Your task to perform on an android device: uninstall "PlayWell" Image 0: 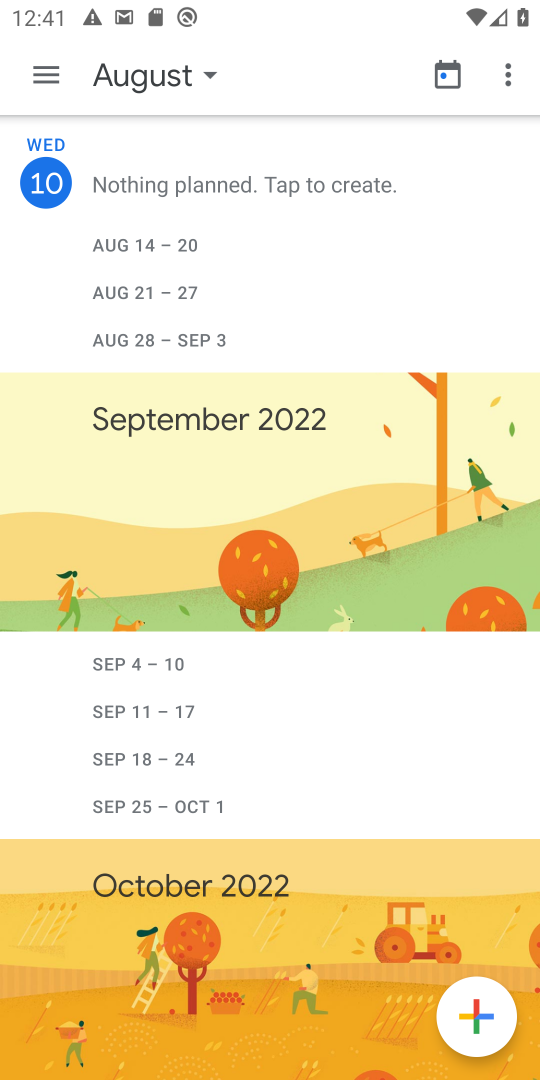
Step 0: press home button
Your task to perform on an android device: uninstall "PlayWell" Image 1: 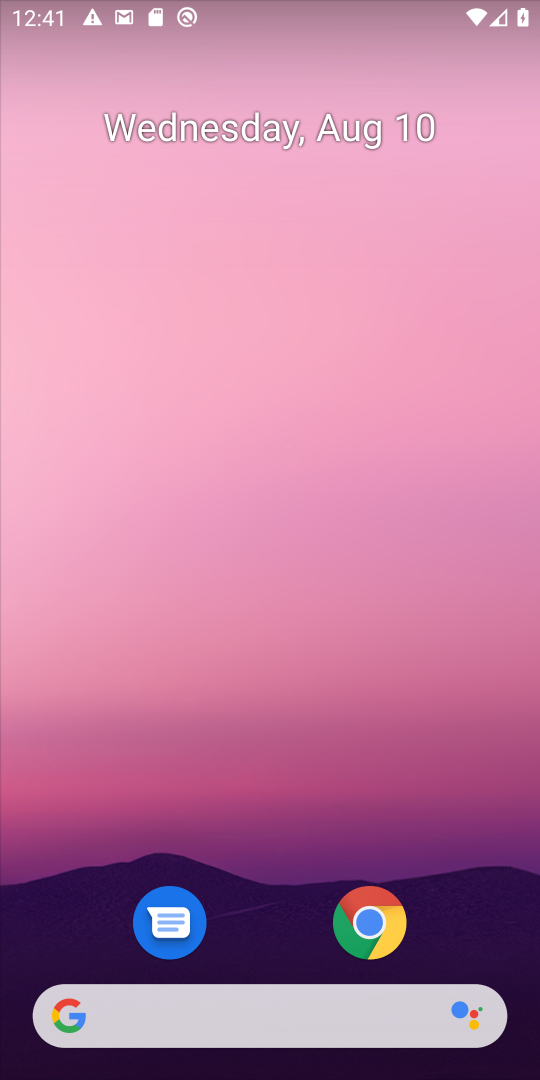
Step 1: drag from (261, 906) to (246, 315)
Your task to perform on an android device: uninstall "PlayWell" Image 2: 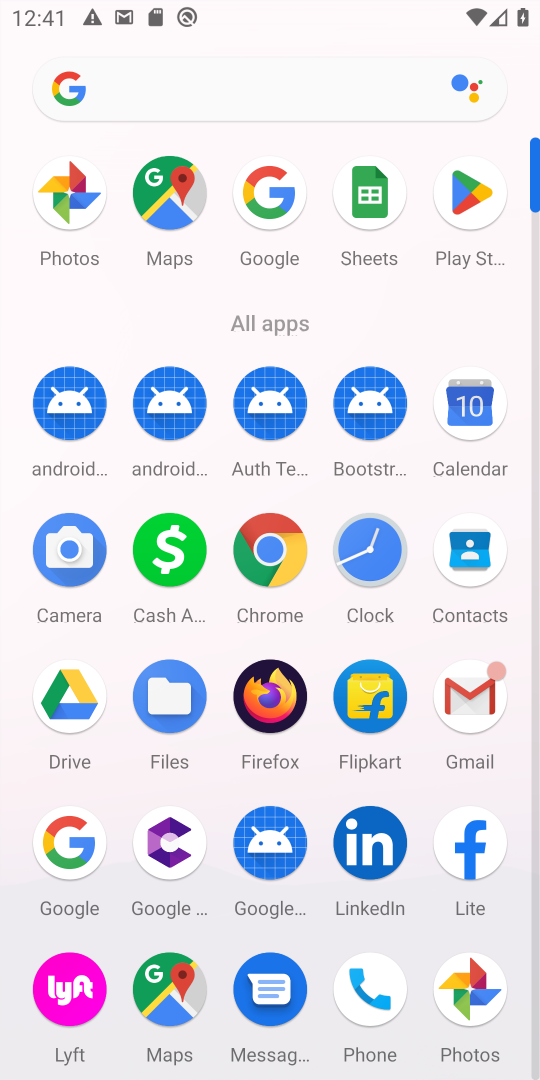
Step 2: click (463, 191)
Your task to perform on an android device: uninstall "PlayWell" Image 3: 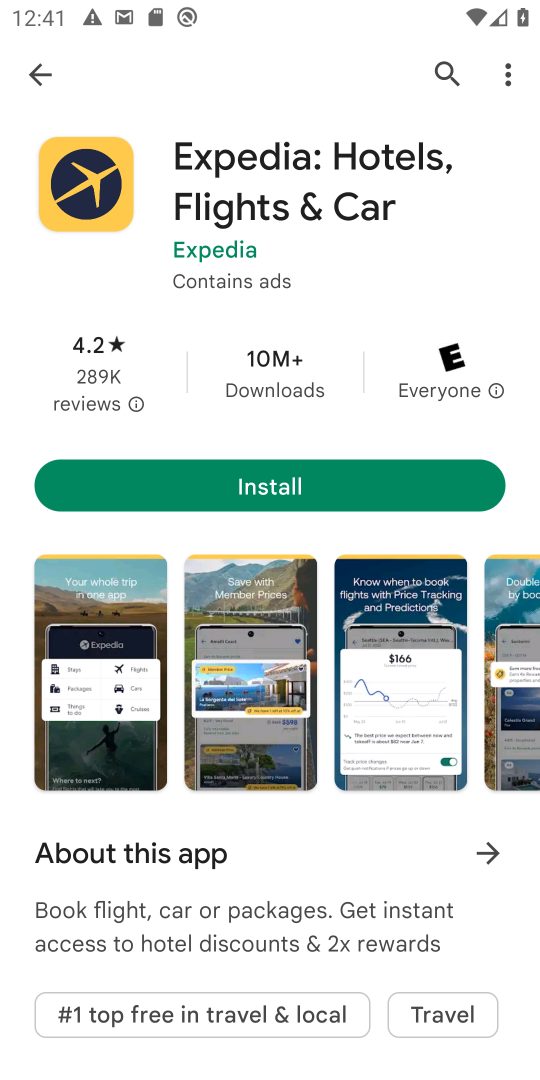
Step 3: click (34, 70)
Your task to perform on an android device: uninstall "PlayWell" Image 4: 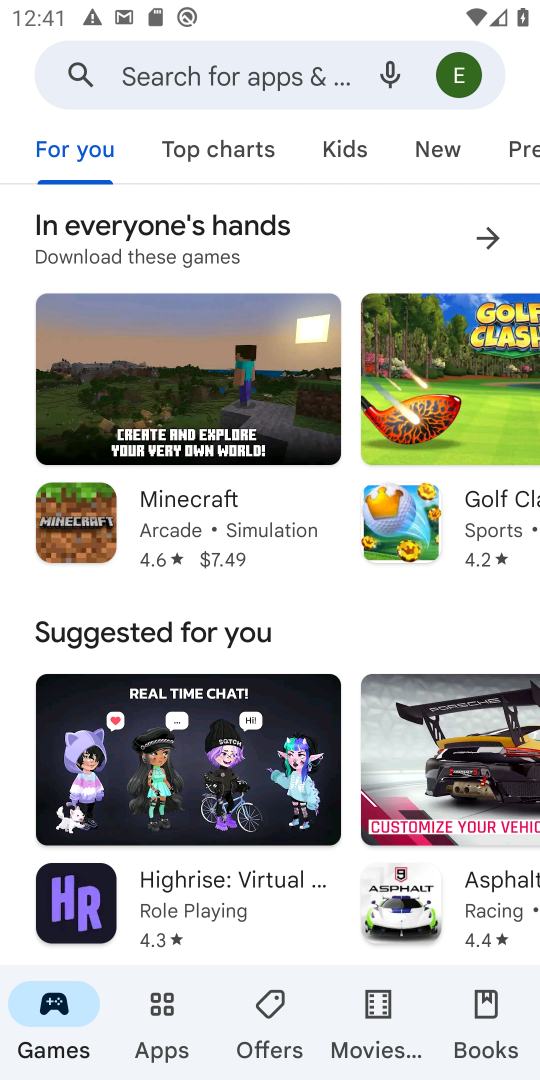
Step 4: click (193, 67)
Your task to perform on an android device: uninstall "PlayWell" Image 5: 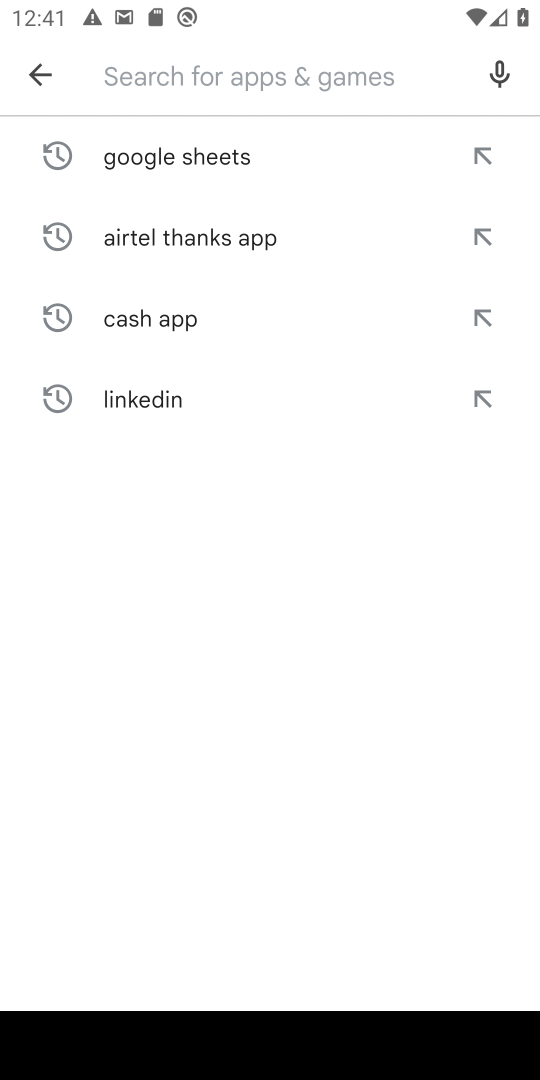
Step 5: type "PlayWell"
Your task to perform on an android device: uninstall "PlayWell" Image 6: 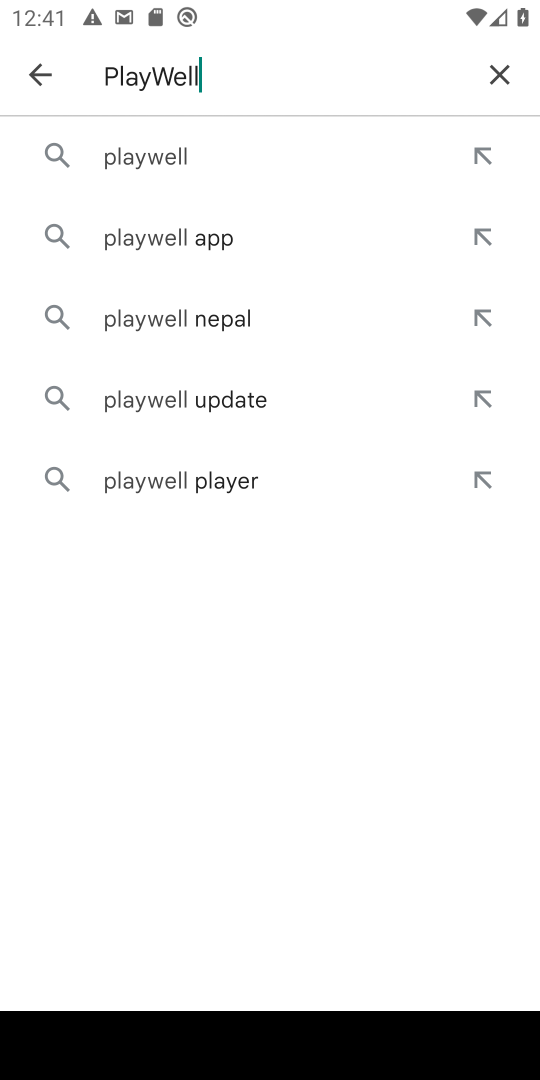
Step 6: click (120, 142)
Your task to perform on an android device: uninstall "PlayWell" Image 7: 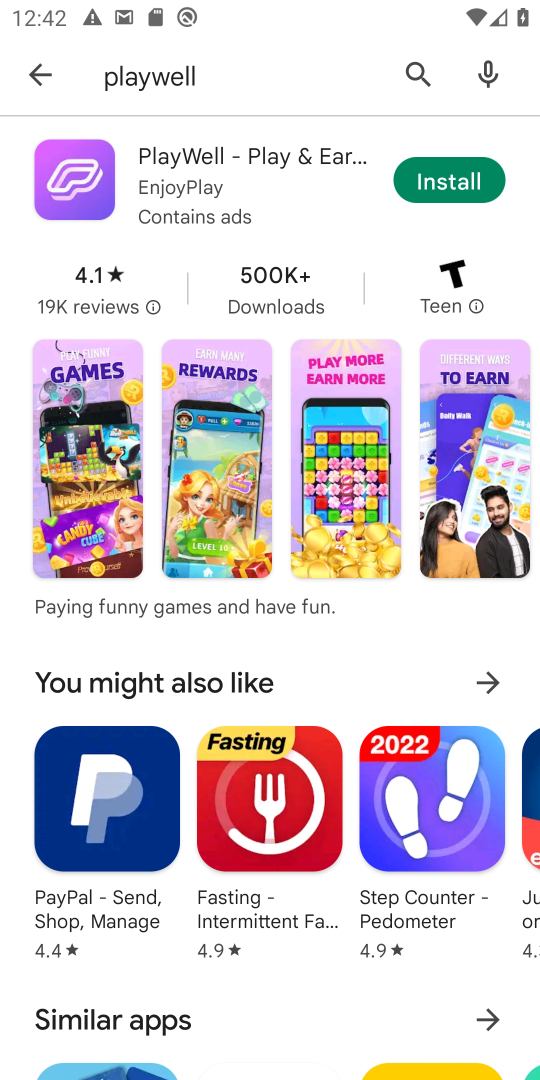
Step 7: task complete